Your task to perform on an android device: turn off notifications settings in the gmail app Image 0: 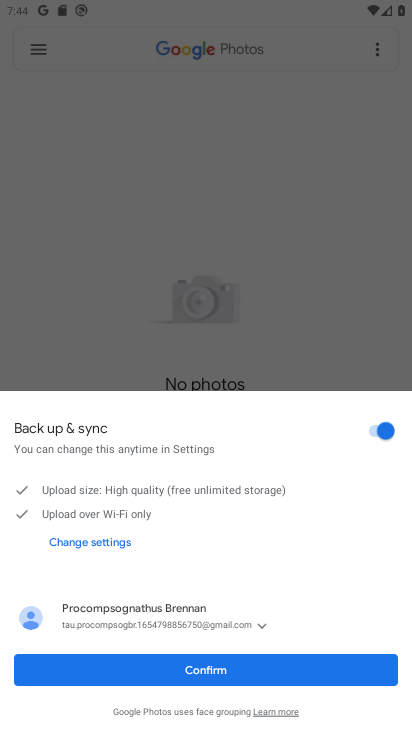
Step 0: press home button
Your task to perform on an android device: turn off notifications settings in the gmail app Image 1: 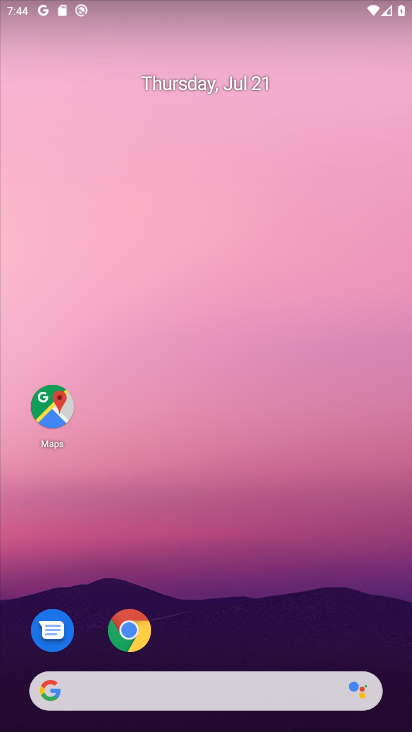
Step 1: drag from (229, 658) to (130, 91)
Your task to perform on an android device: turn off notifications settings in the gmail app Image 2: 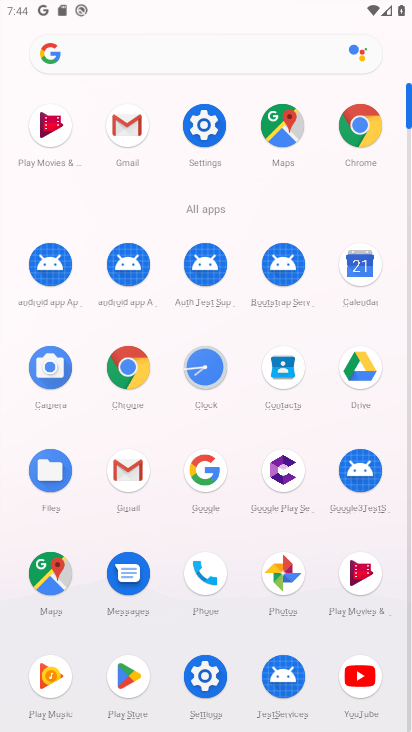
Step 2: click (138, 459)
Your task to perform on an android device: turn off notifications settings in the gmail app Image 3: 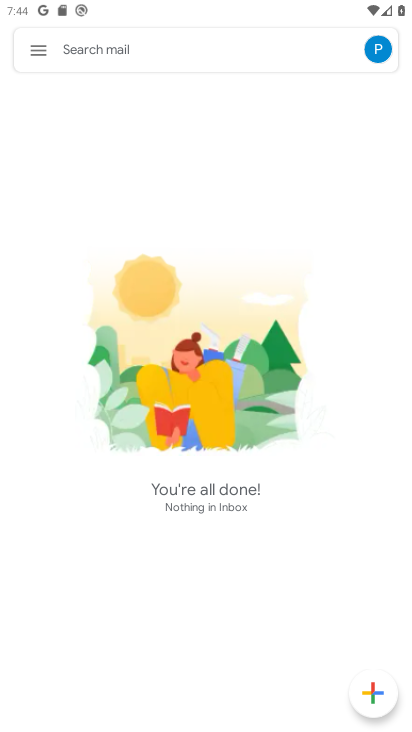
Step 3: click (42, 50)
Your task to perform on an android device: turn off notifications settings in the gmail app Image 4: 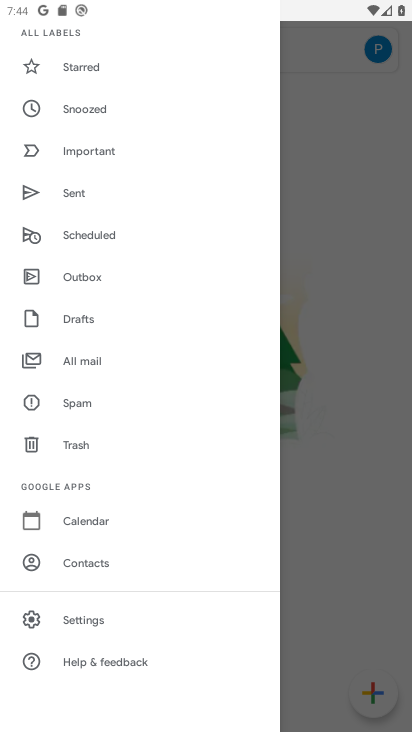
Step 4: click (76, 608)
Your task to perform on an android device: turn off notifications settings in the gmail app Image 5: 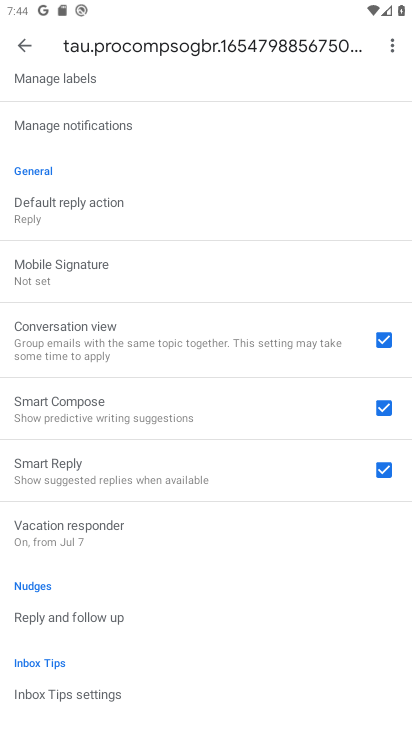
Step 5: click (27, 44)
Your task to perform on an android device: turn off notifications settings in the gmail app Image 6: 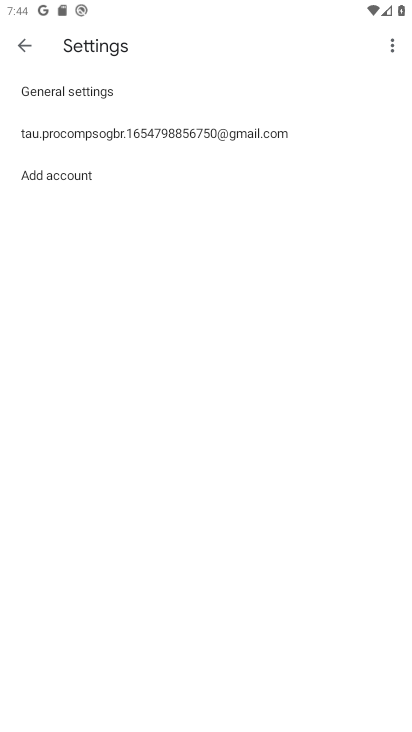
Step 6: click (31, 89)
Your task to perform on an android device: turn off notifications settings in the gmail app Image 7: 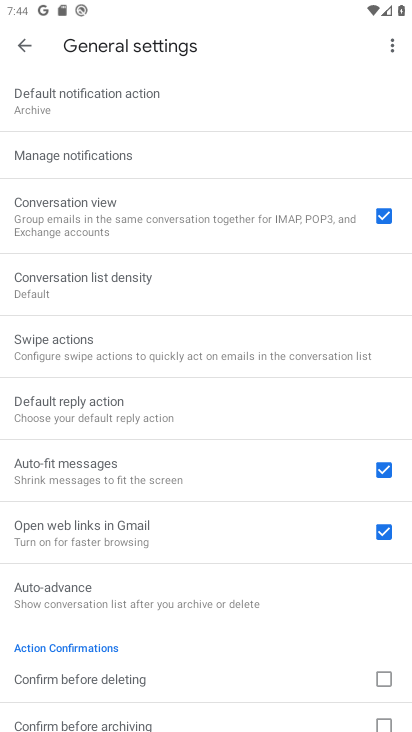
Step 7: click (80, 155)
Your task to perform on an android device: turn off notifications settings in the gmail app Image 8: 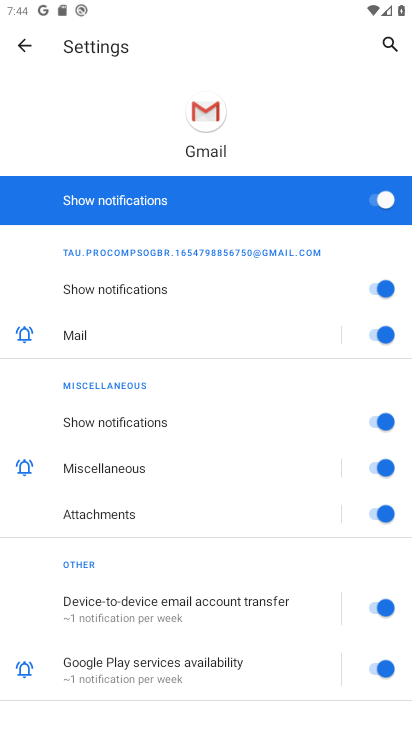
Step 8: click (370, 196)
Your task to perform on an android device: turn off notifications settings in the gmail app Image 9: 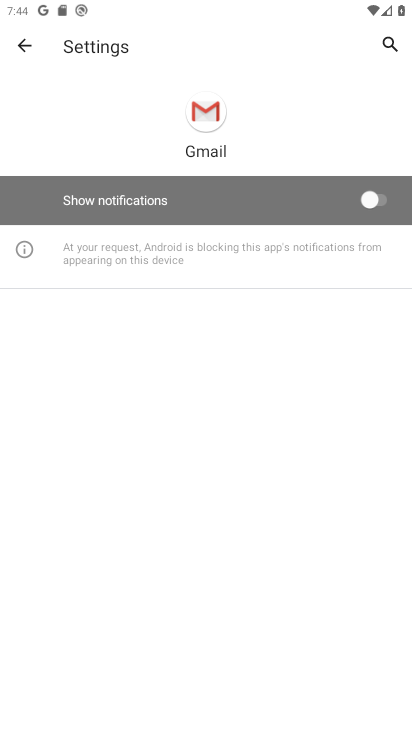
Step 9: task complete